Your task to perform on an android device: turn smart compose on in the gmail app Image 0: 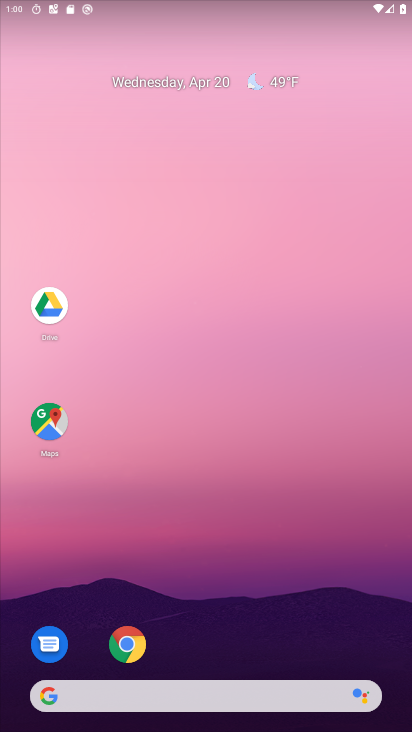
Step 0: drag from (212, 588) to (205, 56)
Your task to perform on an android device: turn smart compose on in the gmail app Image 1: 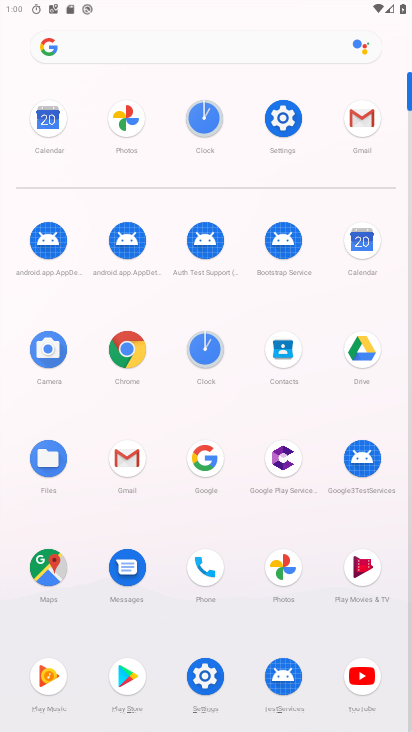
Step 1: click (124, 456)
Your task to perform on an android device: turn smart compose on in the gmail app Image 2: 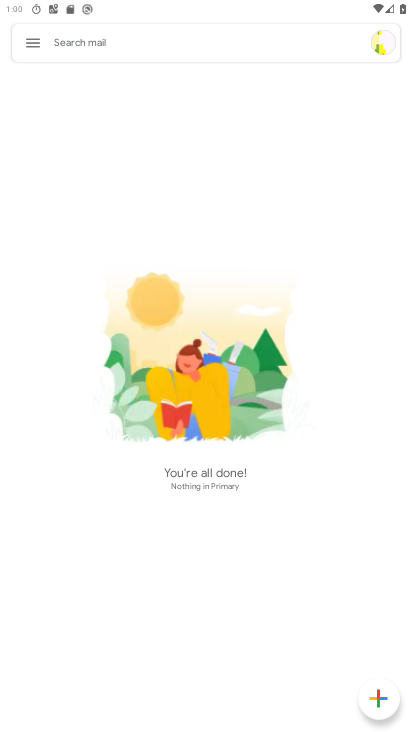
Step 2: click (32, 44)
Your task to perform on an android device: turn smart compose on in the gmail app Image 3: 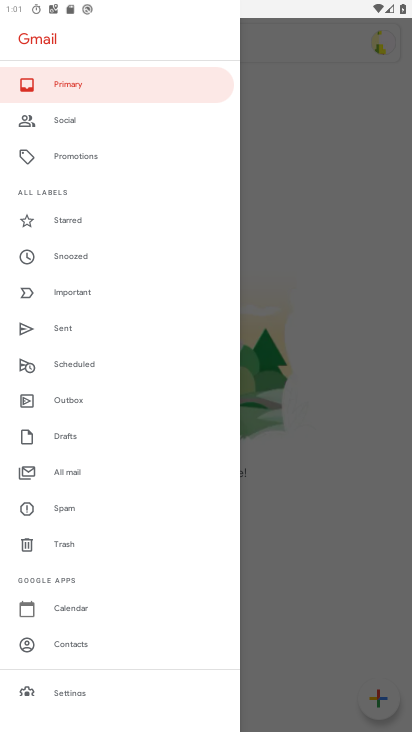
Step 3: click (88, 692)
Your task to perform on an android device: turn smart compose on in the gmail app Image 4: 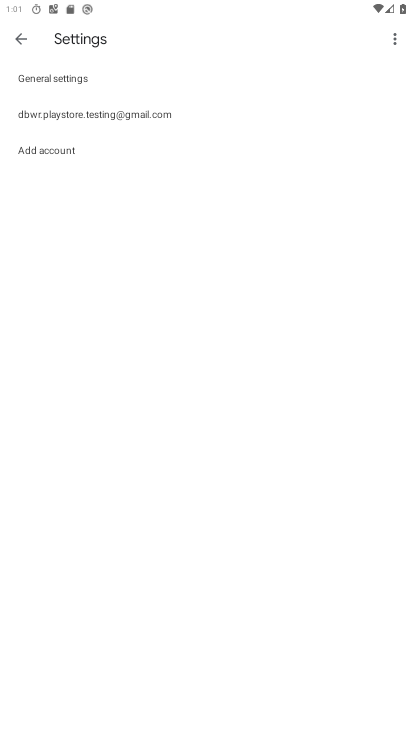
Step 4: click (87, 107)
Your task to perform on an android device: turn smart compose on in the gmail app Image 5: 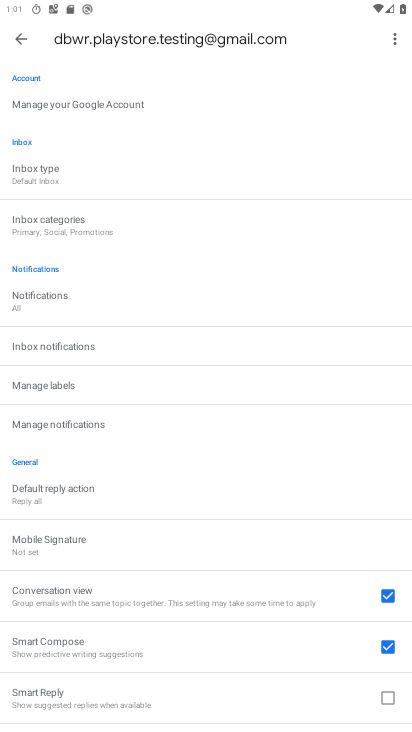
Step 5: task complete